Your task to perform on an android device: Open settings on Google Maps Image 0: 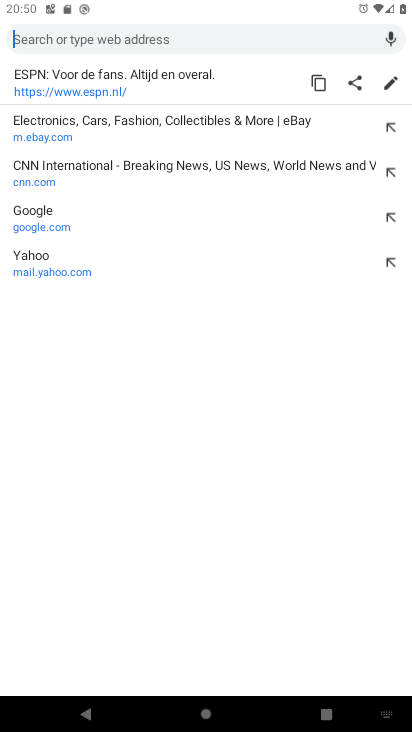
Step 0: press home button
Your task to perform on an android device: Open settings on Google Maps Image 1: 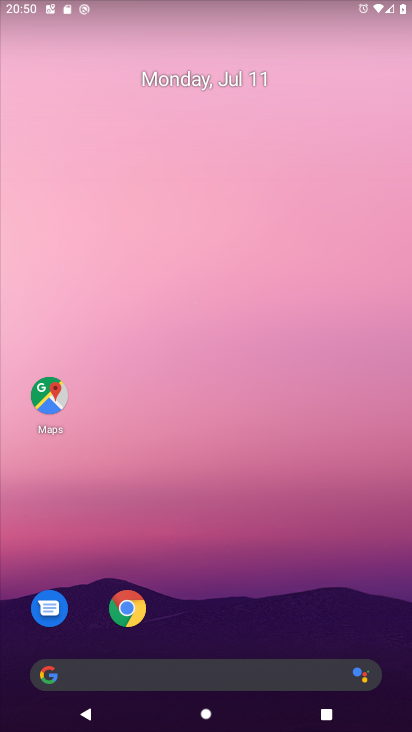
Step 1: click (41, 395)
Your task to perform on an android device: Open settings on Google Maps Image 2: 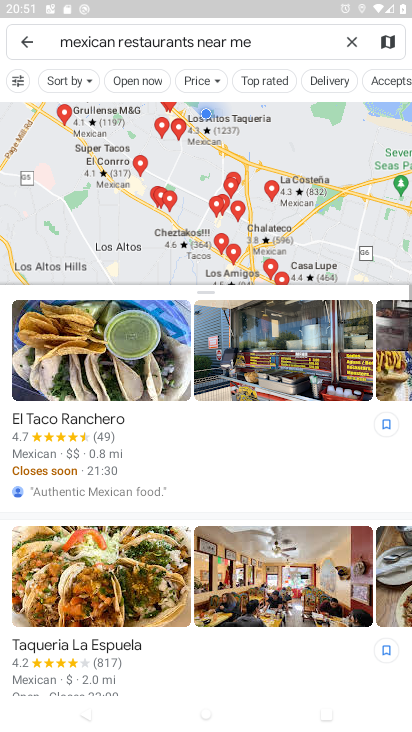
Step 2: click (17, 44)
Your task to perform on an android device: Open settings on Google Maps Image 3: 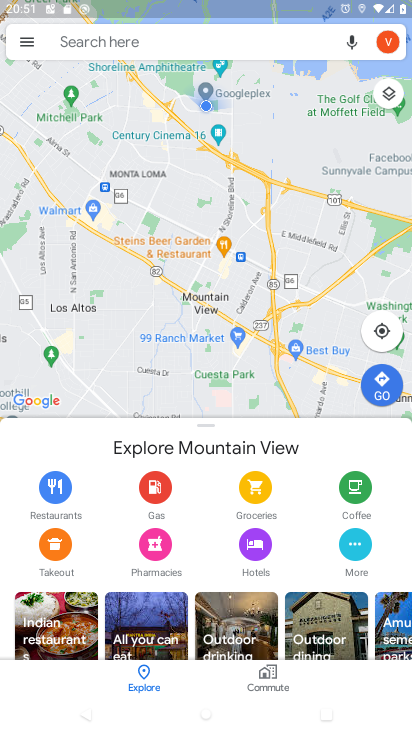
Step 3: click (17, 44)
Your task to perform on an android device: Open settings on Google Maps Image 4: 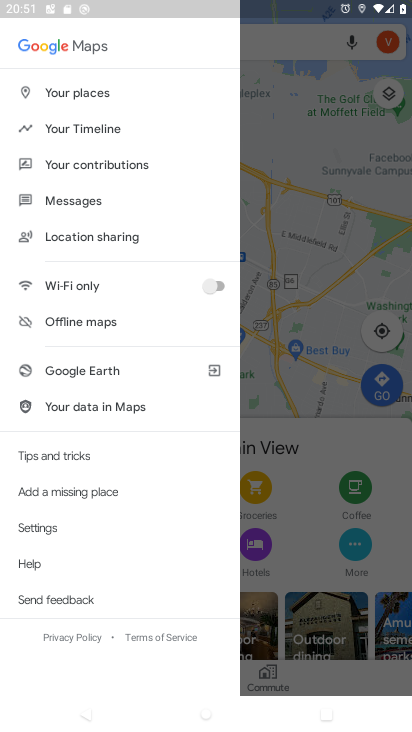
Step 4: click (63, 522)
Your task to perform on an android device: Open settings on Google Maps Image 5: 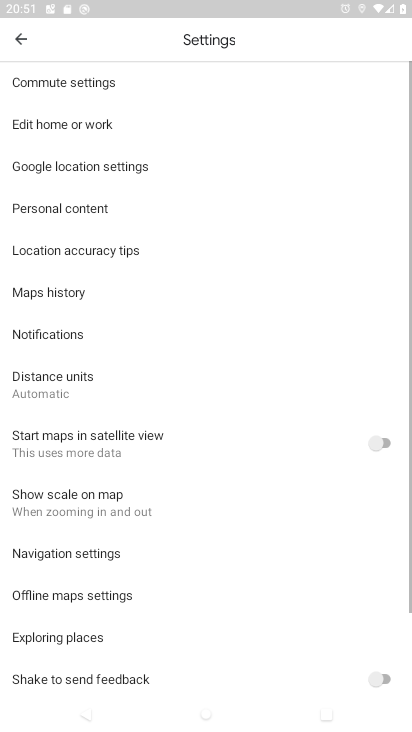
Step 5: task complete